Your task to perform on an android device: check google app version Image 0: 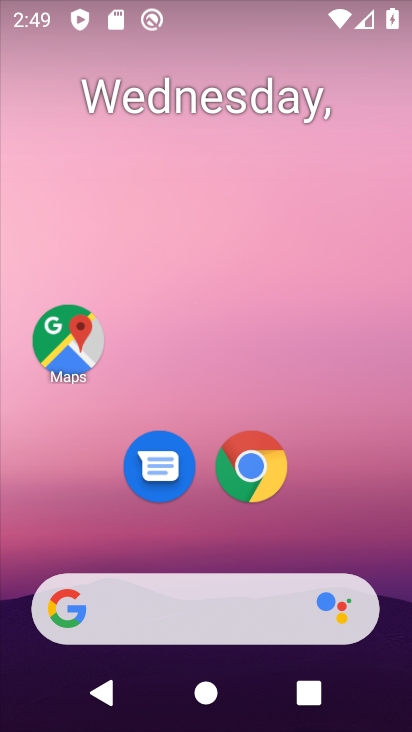
Step 0: drag from (232, 547) to (189, 22)
Your task to perform on an android device: check google app version Image 1: 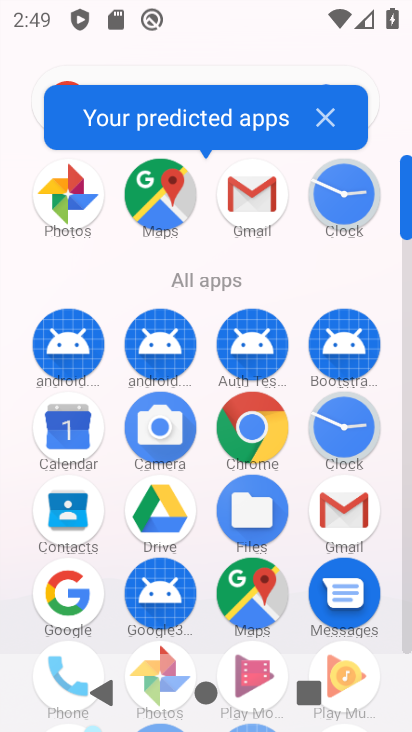
Step 1: click (61, 612)
Your task to perform on an android device: check google app version Image 2: 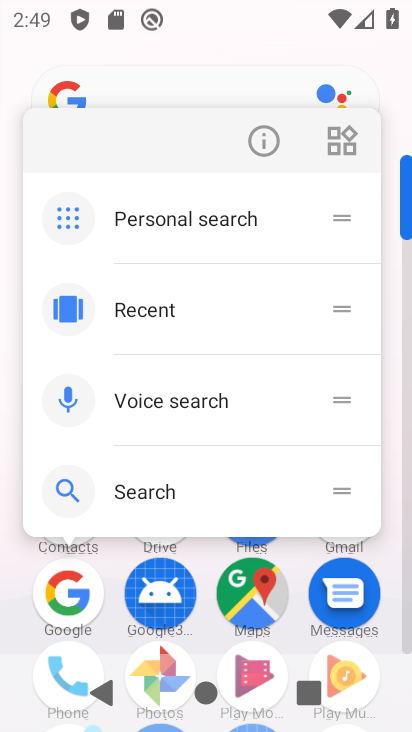
Step 2: click (248, 138)
Your task to perform on an android device: check google app version Image 3: 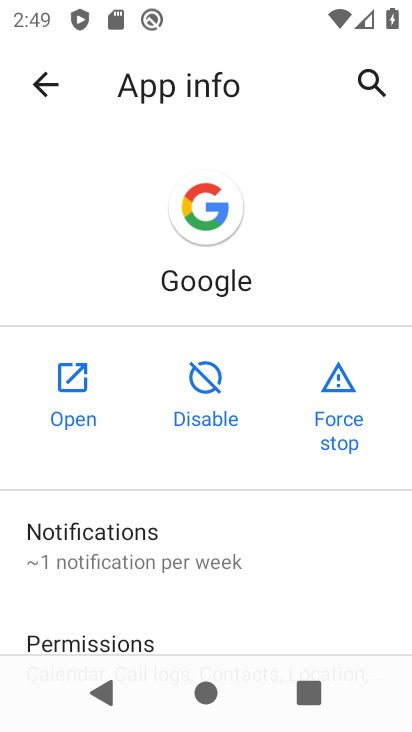
Step 3: drag from (262, 546) to (219, 95)
Your task to perform on an android device: check google app version Image 4: 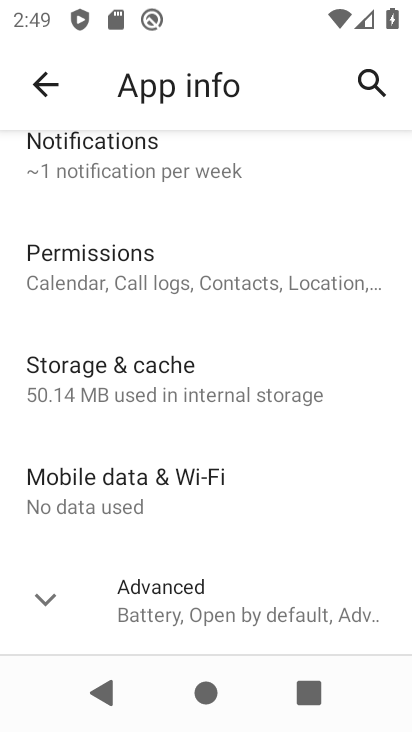
Step 4: click (205, 602)
Your task to perform on an android device: check google app version Image 5: 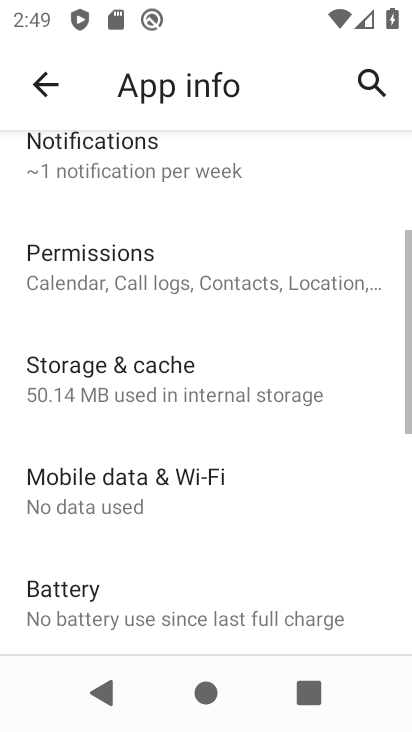
Step 5: task complete